Your task to perform on an android device: turn on bluetooth scan Image 0: 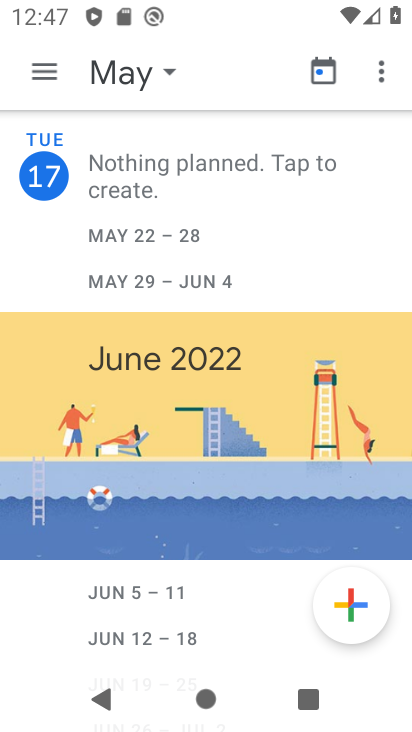
Step 0: press home button
Your task to perform on an android device: turn on bluetooth scan Image 1: 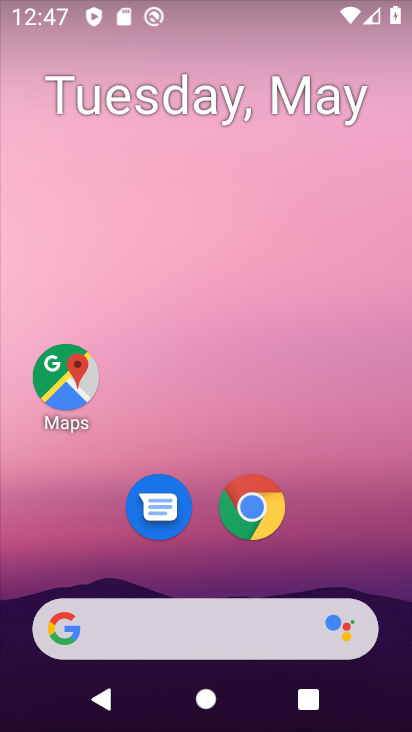
Step 1: drag from (335, 527) to (344, 137)
Your task to perform on an android device: turn on bluetooth scan Image 2: 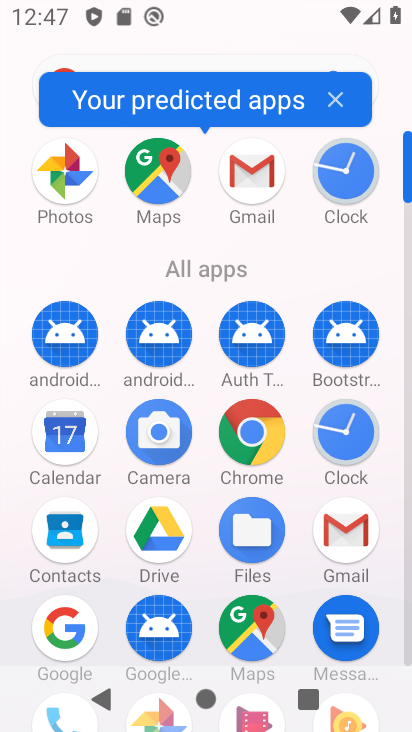
Step 2: drag from (196, 658) to (196, 422)
Your task to perform on an android device: turn on bluetooth scan Image 3: 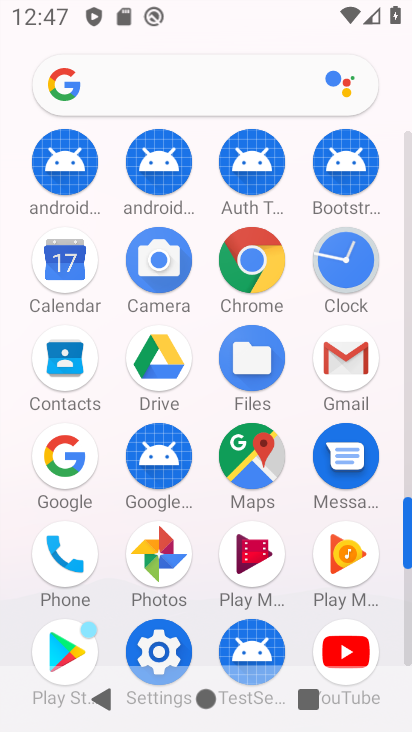
Step 3: click (152, 628)
Your task to perform on an android device: turn on bluetooth scan Image 4: 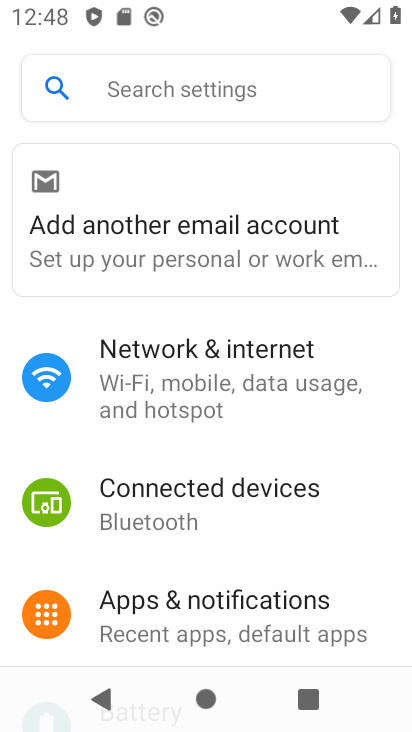
Step 4: drag from (215, 558) to (246, 325)
Your task to perform on an android device: turn on bluetooth scan Image 5: 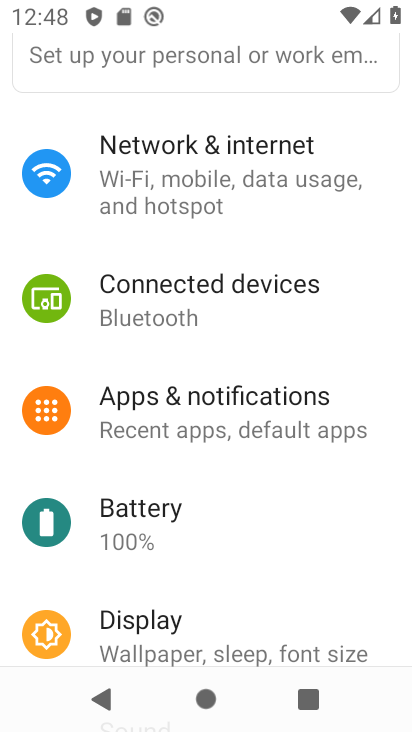
Step 5: drag from (240, 615) to (263, 359)
Your task to perform on an android device: turn on bluetooth scan Image 6: 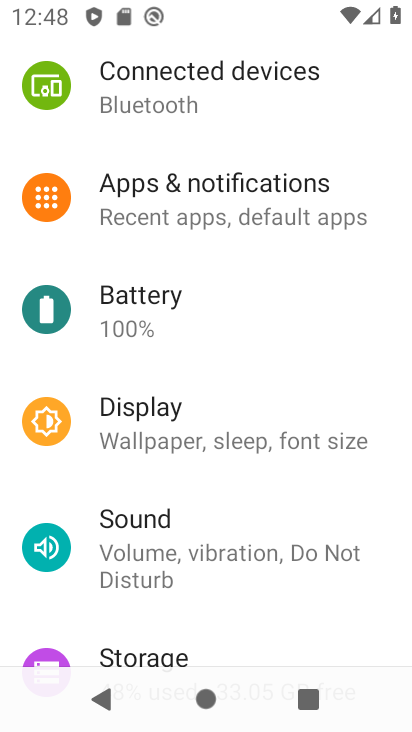
Step 6: drag from (205, 569) to (254, 267)
Your task to perform on an android device: turn on bluetooth scan Image 7: 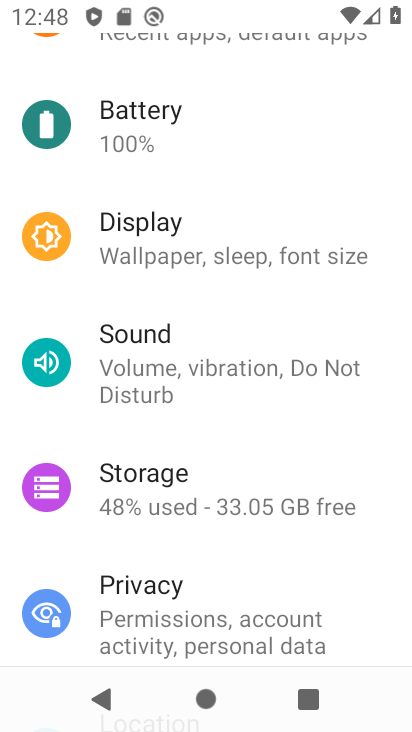
Step 7: drag from (196, 608) to (254, 374)
Your task to perform on an android device: turn on bluetooth scan Image 8: 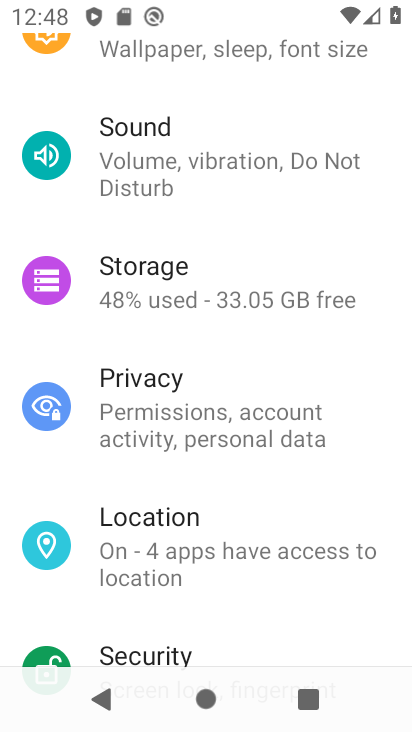
Step 8: click (184, 551)
Your task to perform on an android device: turn on bluetooth scan Image 9: 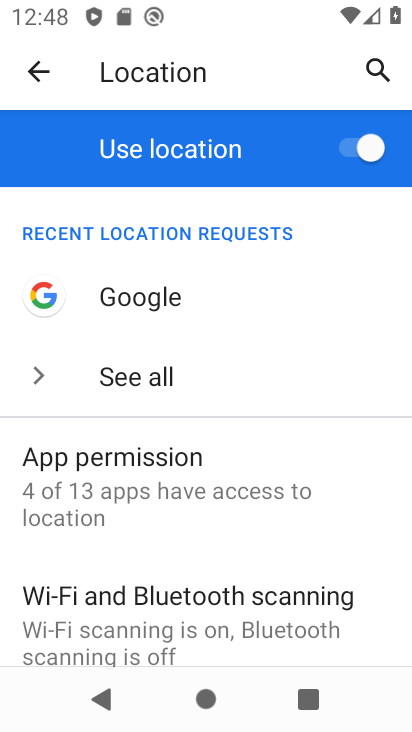
Step 9: click (293, 622)
Your task to perform on an android device: turn on bluetooth scan Image 10: 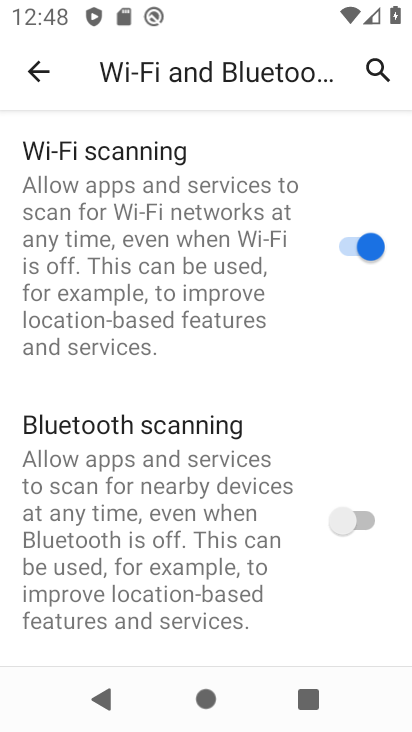
Step 10: click (368, 519)
Your task to perform on an android device: turn on bluetooth scan Image 11: 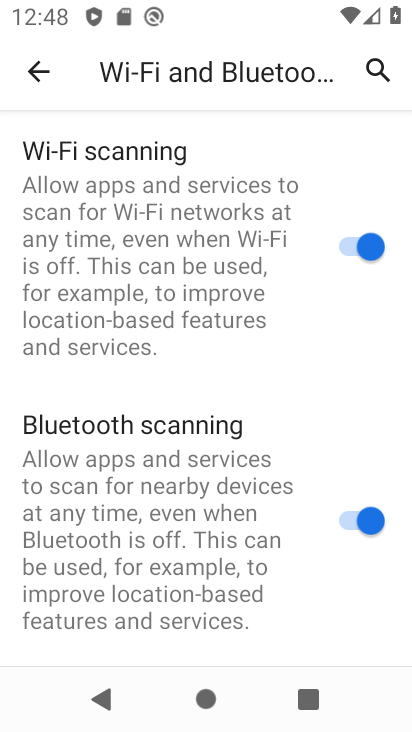
Step 11: task complete